Your task to perform on an android device: move an email to a new category in the gmail app Image 0: 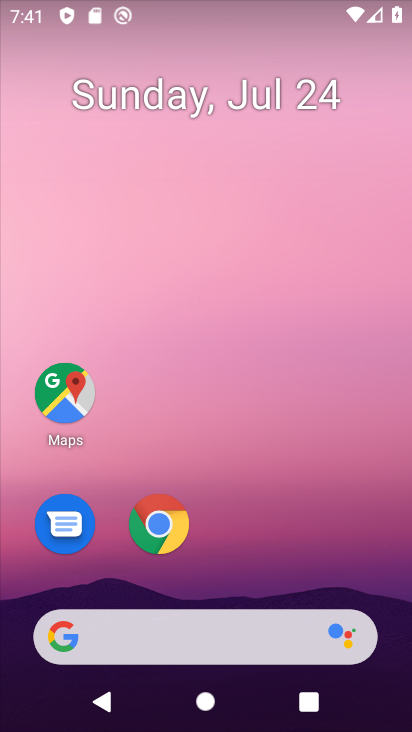
Step 0: drag from (263, 568) to (268, 14)
Your task to perform on an android device: move an email to a new category in the gmail app Image 1: 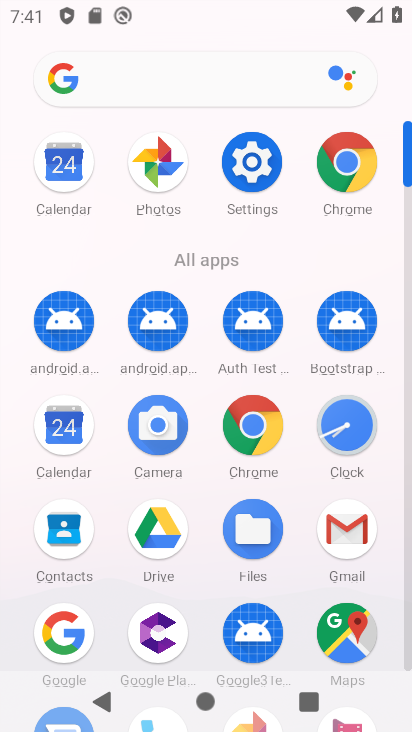
Step 1: click (352, 531)
Your task to perform on an android device: move an email to a new category in the gmail app Image 2: 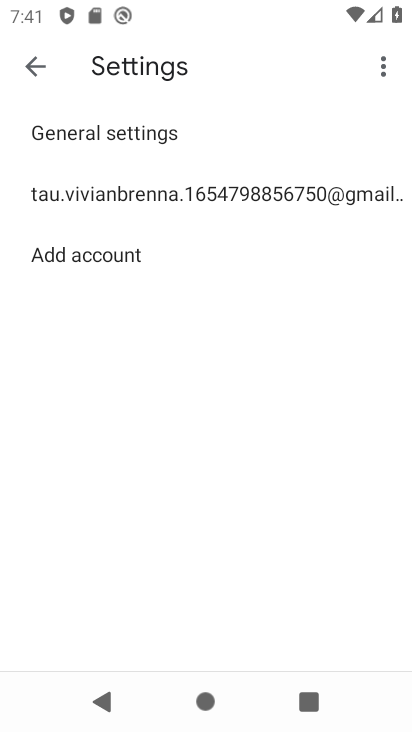
Step 2: click (36, 71)
Your task to perform on an android device: move an email to a new category in the gmail app Image 3: 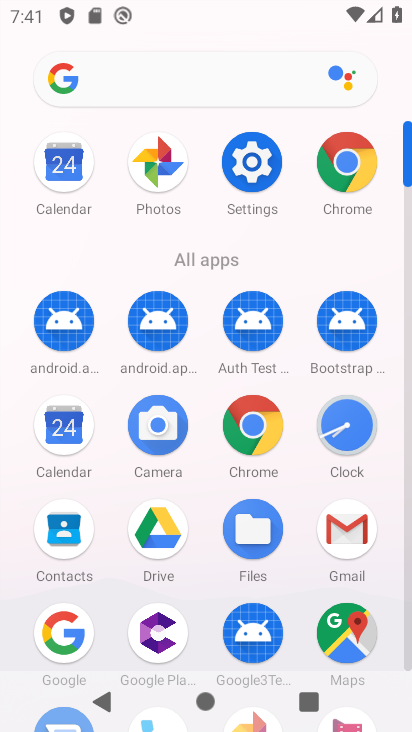
Step 3: click (359, 522)
Your task to perform on an android device: move an email to a new category in the gmail app Image 4: 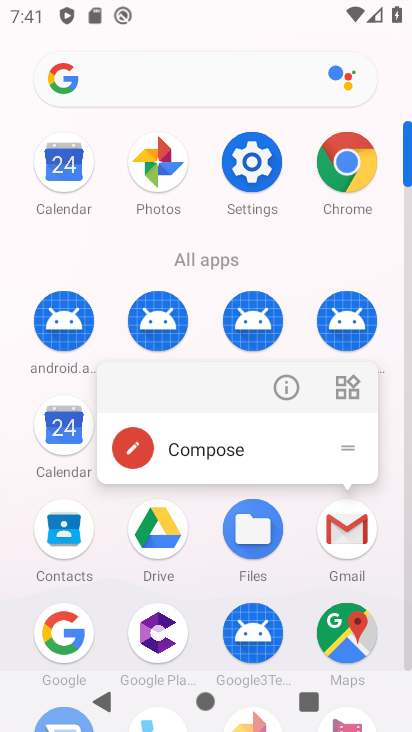
Step 4: click (362, 534)
Your task to perform on an android device: move an email to a new category in the gmail app Image 5: 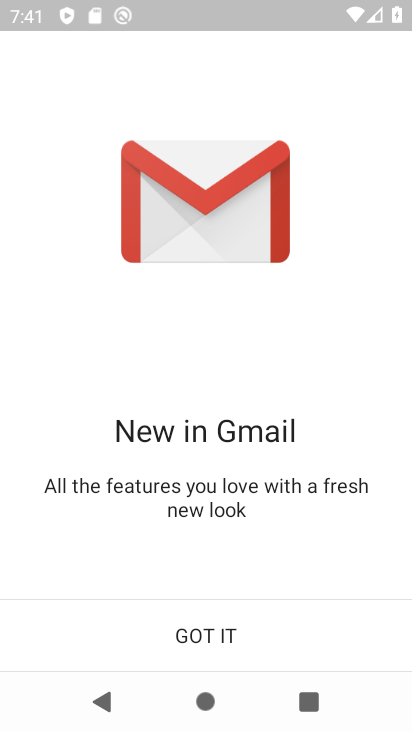
Step 5: click (267, 625)
Your task to perform on an android device: move an email to a new category in the gmail app Image 6: 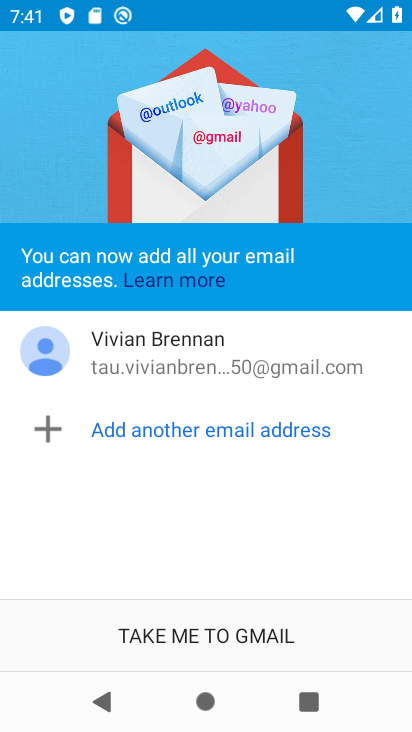
Step 6: click (267, 627)
Your task to perform on an android device: move an email to a new category in the gmail app Image 7: 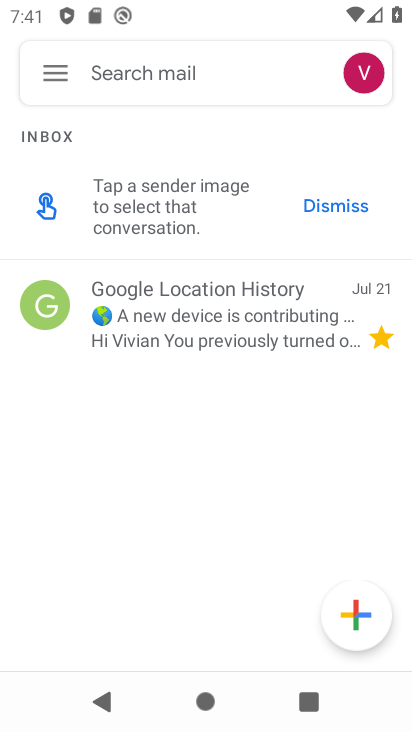
Step 7: click (227, 313)
Your task to perform on an android device: move an email to a new category in the gmail app Image 8: 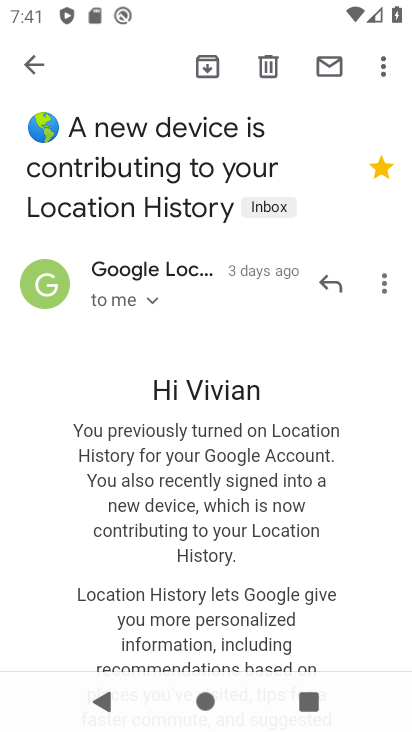
Step 8: click (379, 67)
Your task to perform on an android device: move an email to a new category in the gmail app Image 9: 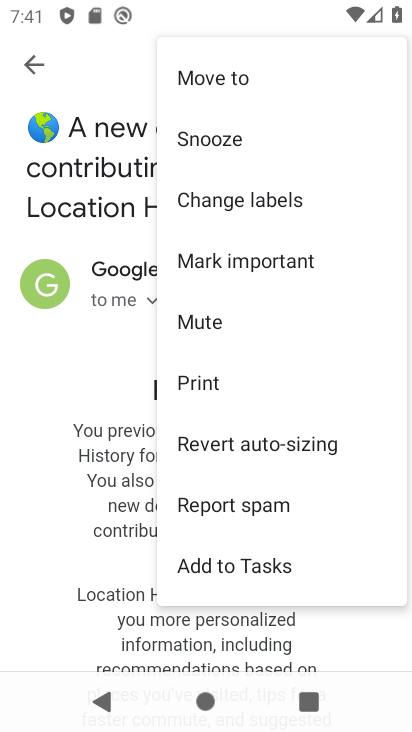
Step 9: click (232, 73)
Your task to perform on an android device: move an email to a new category in the gmail app Image 10: 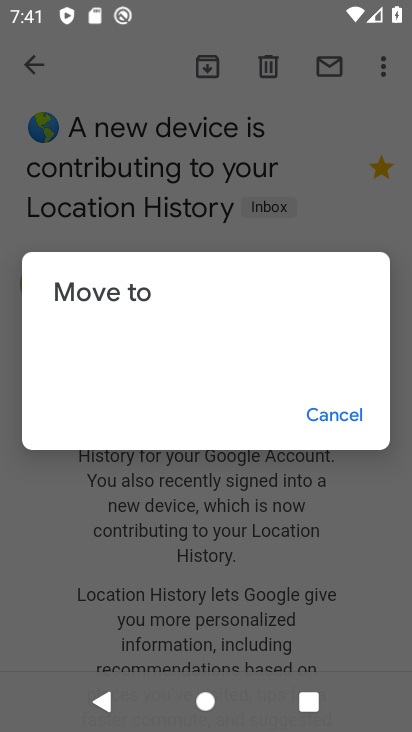
Step 10: click (349, 415)
Your task to perform on an android device: move an email to a new category in the gmail app Image 11: 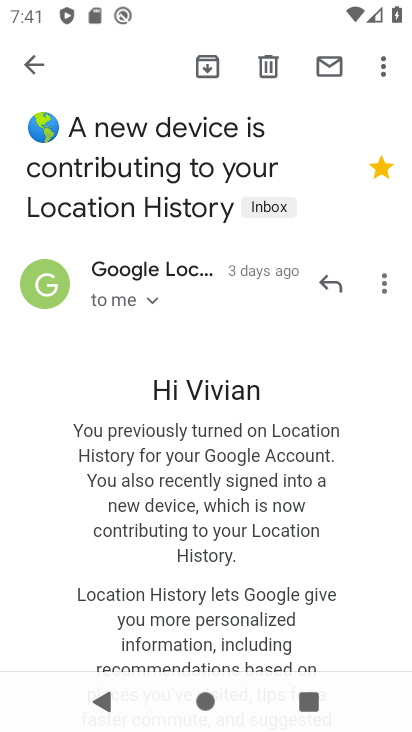
Step 11: task complete